Your task to perform on an android device: change notifications settings Image 0: 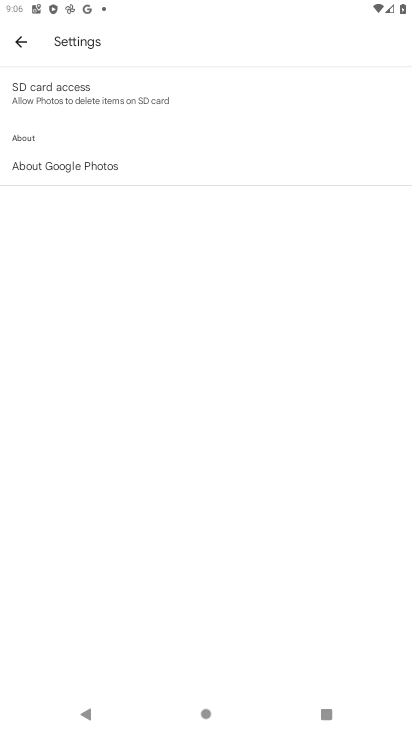
Step 0: press home button
Your task to perform on an android device: change notifications settings Image 1: 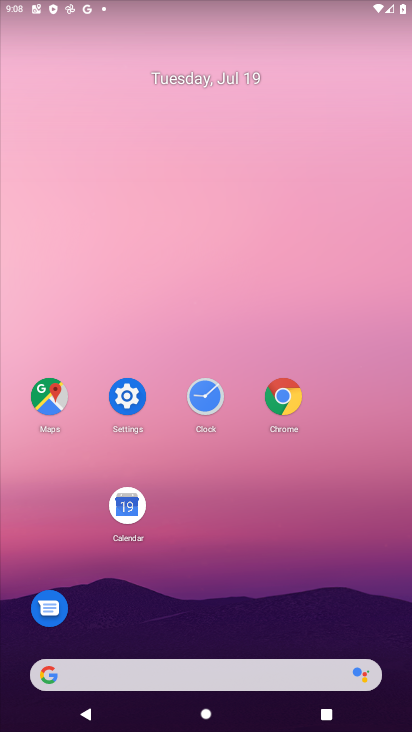
Step 1: click (121, 390)
Your task to perform on an android device: change notifications settings Image 2: 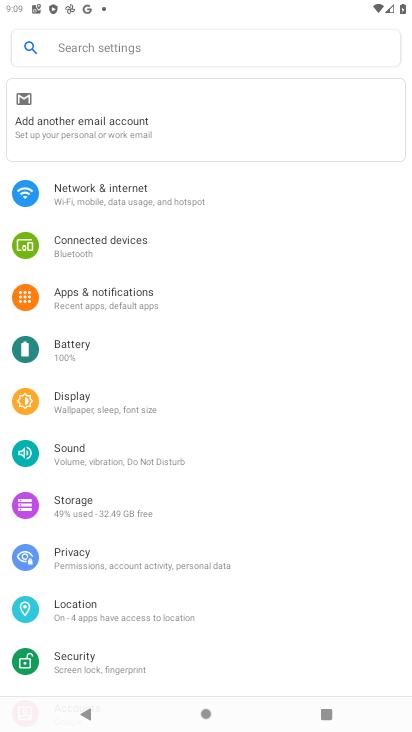
Step 2: click (68, 295)
Your task to perform on an android device: change notifications settings Image 3: 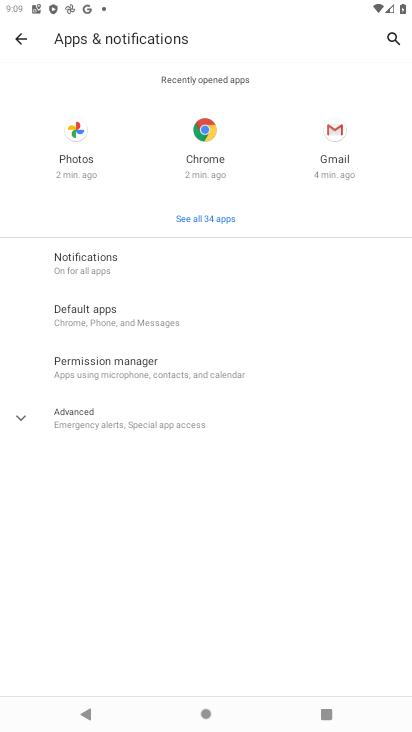
Step 3: click (94, 259)
Your task to perform on an android device: change notifications settings Image 4: 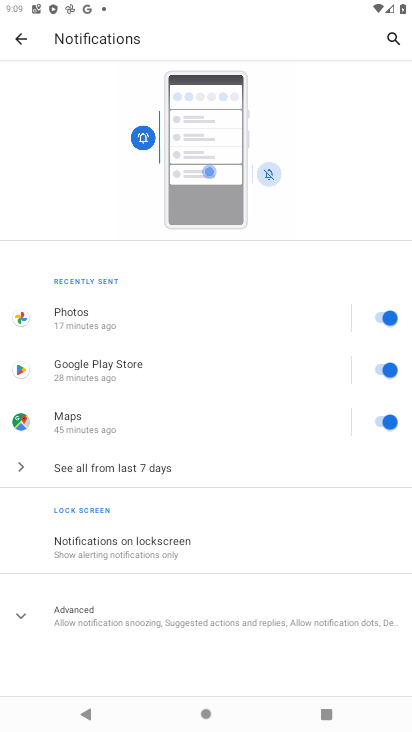
Step 4: click (387, 322)
Your task to perform on an android device: change notifications settings Image 5: 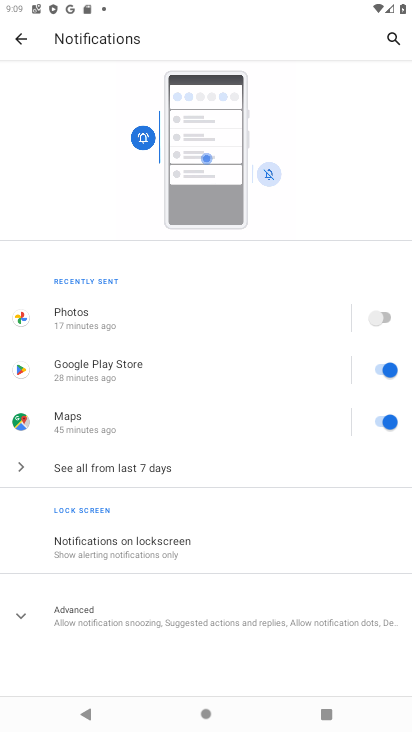
Step 5: click (377, 374)
Your task to perform on an android device: change notifications settings Image 6: 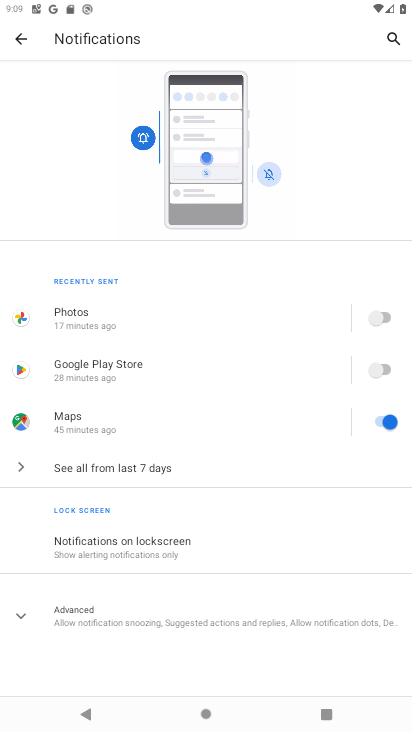
Step 6: click (374, 417)
Your task to perform on an android device: change notifications settings Image 7: 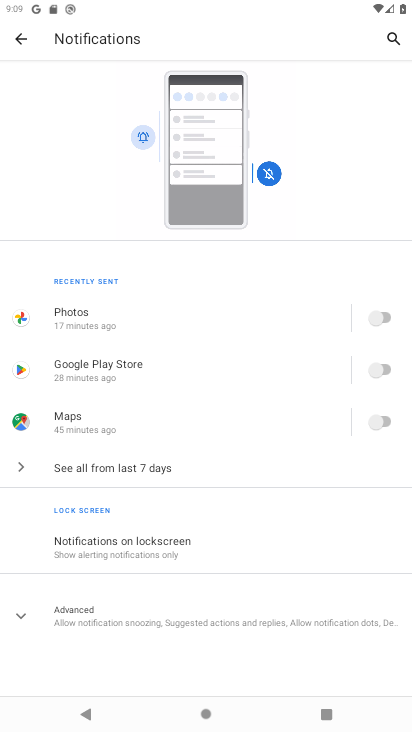
Step 7: task complete